Your task to perform on an android device: Search for a dining table on crateandbarrel.com Image 0: 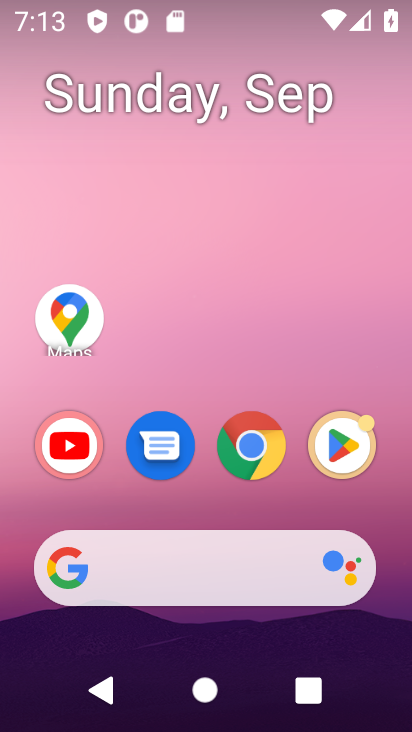
Step 0: drag from (225, 567) to (285, 34)
Your task to perform on an android device: Search for a dining table on crateandbarrel.com Image 1: 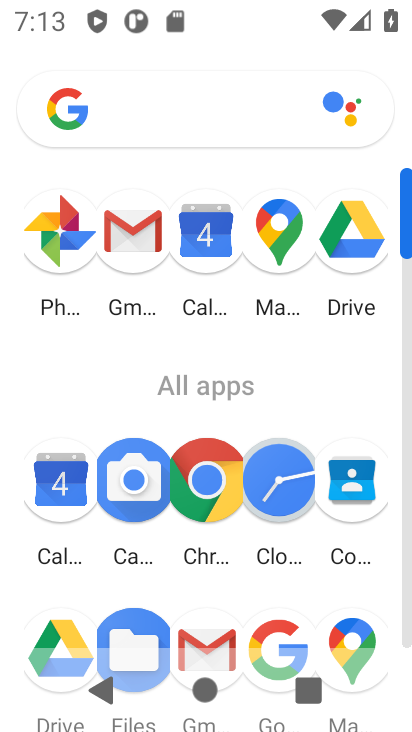
Step 1: click (216, 487)
Your task to perform on an android device: Search for a dining table on crateandbarrel.com Image 2: 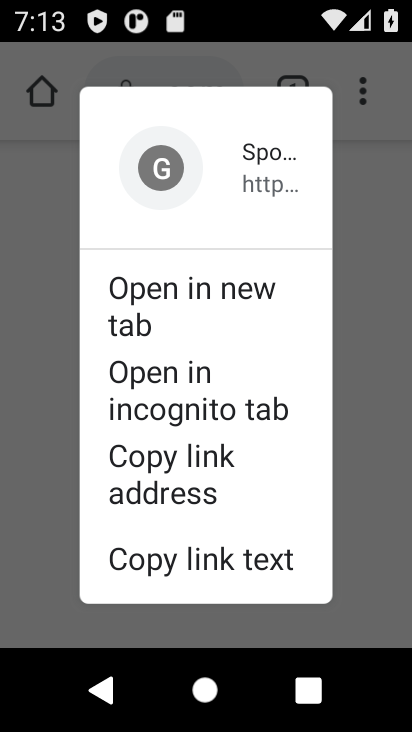
Step 2: press back button
Your task to perform on an android device: Search for a dining table on crateandbarrel.com Image 3: 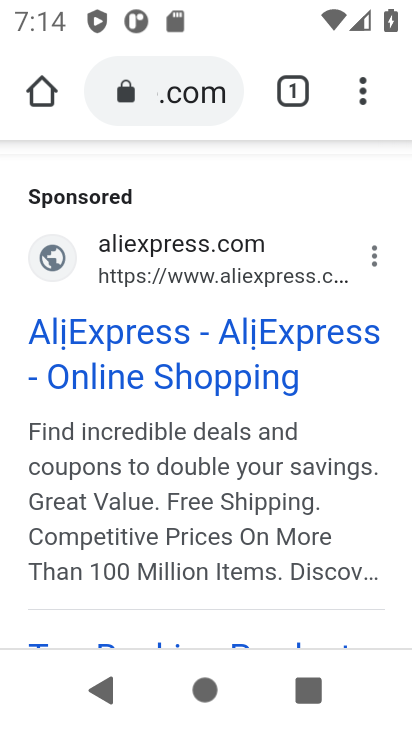
Step 3: click (175, 92)
Your task to perform on an android device: Search for a dining table on crateandbarrel.com Image 4: 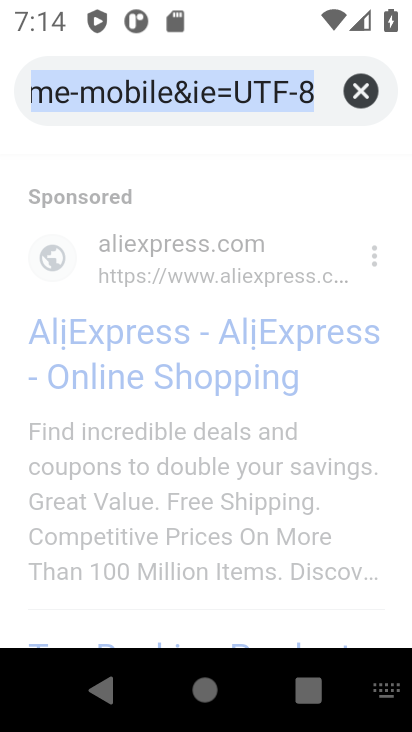
Step 4: click (364, 91)
Your task to perform on an android device: Search for a dining table on crateandbarrel.com Image 5: 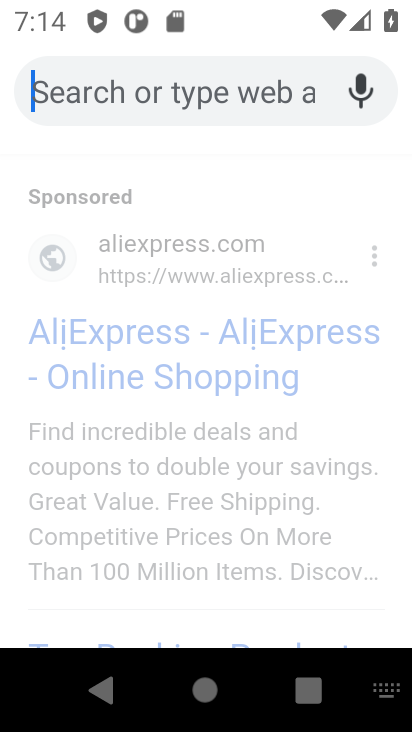
Step 5: type "crateandbarrel.com"
Your task to perform on an android device: Search for a dining table on crateandbarrel.com Image 6: 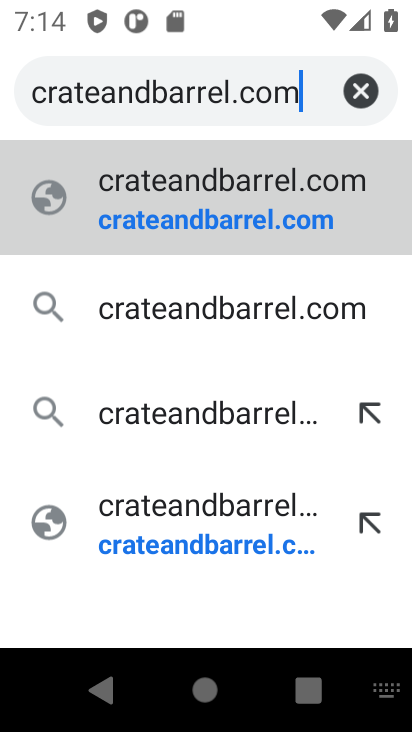
Step 6: press enter
Your task to perform on an android device: Search for a dining table on crateandbarrel.com Image 7: 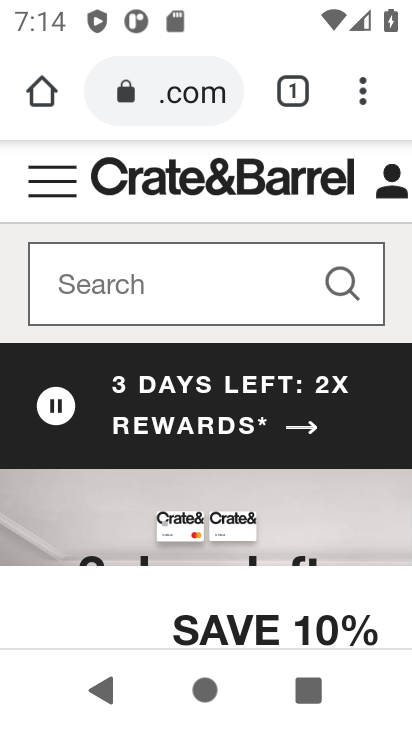
Step 7: click (179, 269)
Your task to perform on an android device: Search for a dining table on crateandbarrel.com Image 8: 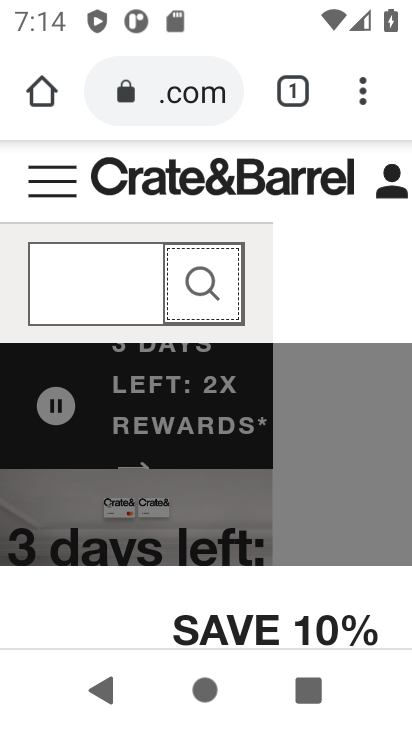
Step 8: type "dining table"
Your task to perform on an android device: Search for a dining table on crateandbarrel.com Image 9: 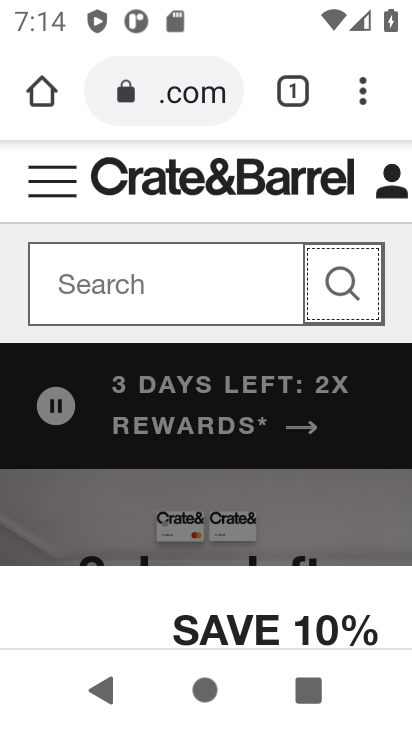
Step 9: press enter
Your task to perform on an android device: Search for a dining table on crateandbarrel.com Image 10: 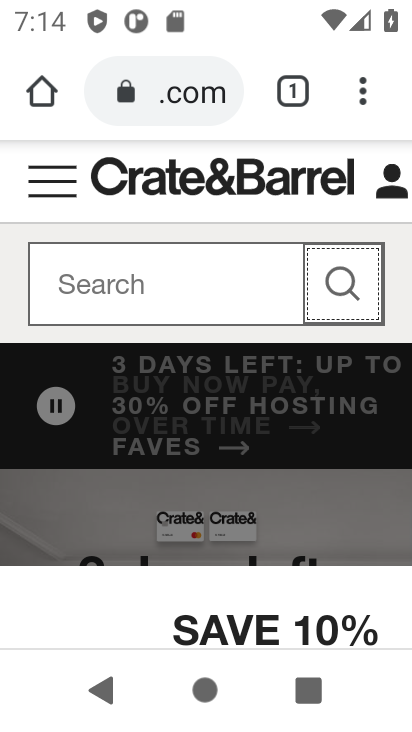
Step 10: click (219, 262)
Your task to perform on an android device: Search for a dining table on crateandbarrel.com Image 11: 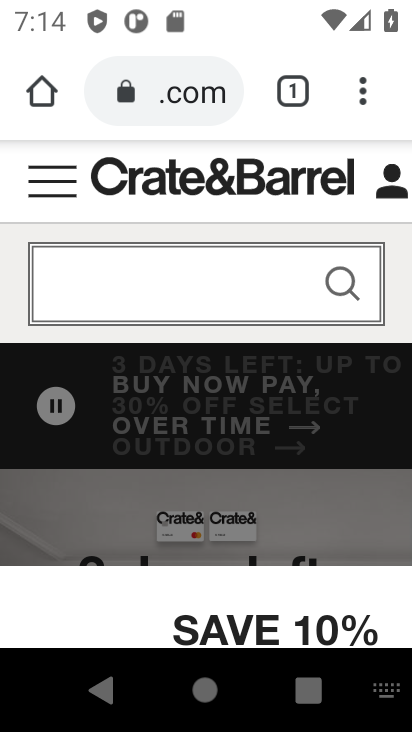
Step 11: type "dining table"
Your task to perform on an android device: Search for a dining table on crateandbarrel.com Image 12: 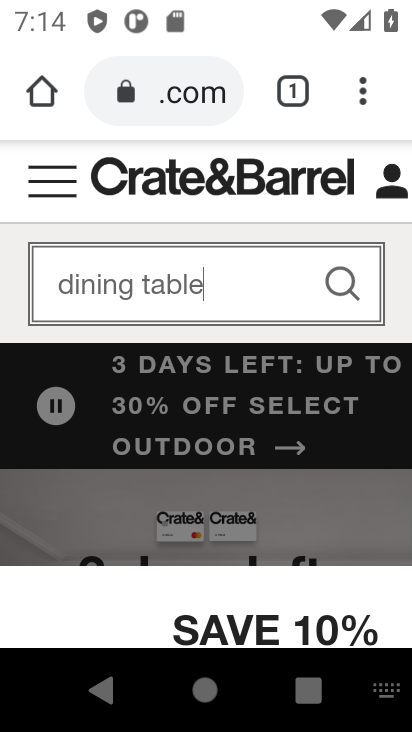
Step 12: press enter
Your task to perform on an android device: Search for a dining table on crateandbarrel.com Image 13: 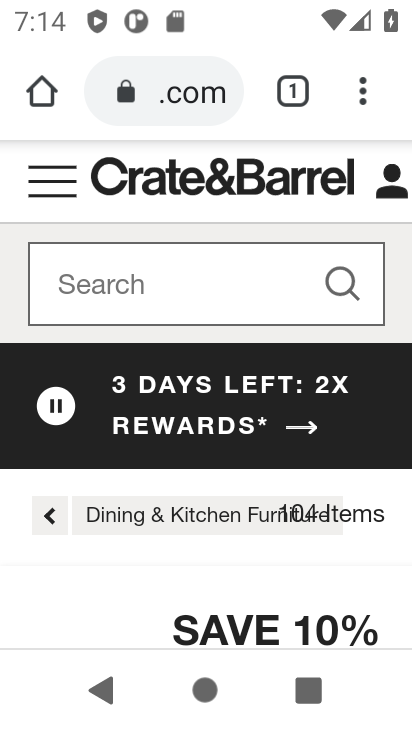
Step 13: drag from (338, 532) to (353, 246)
Your task to perform on an android device: Search for a dining table on crateandbarrel.com Image 14: 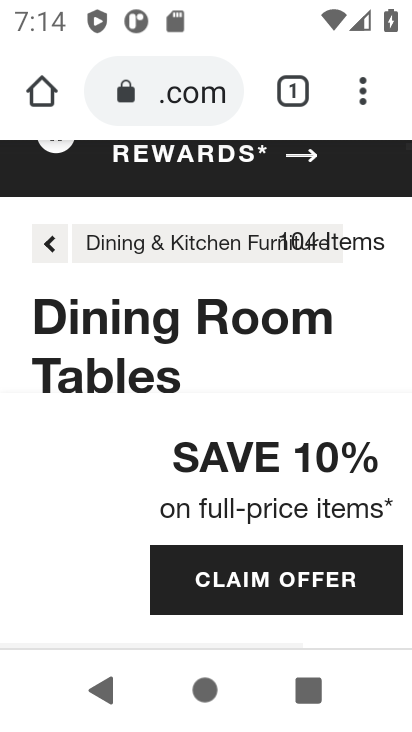
Step 14: drag from (331, 576) to (359, 204)
Your task to perform on an android device: Search for a dining table on crateandbarrel.com Image 15: 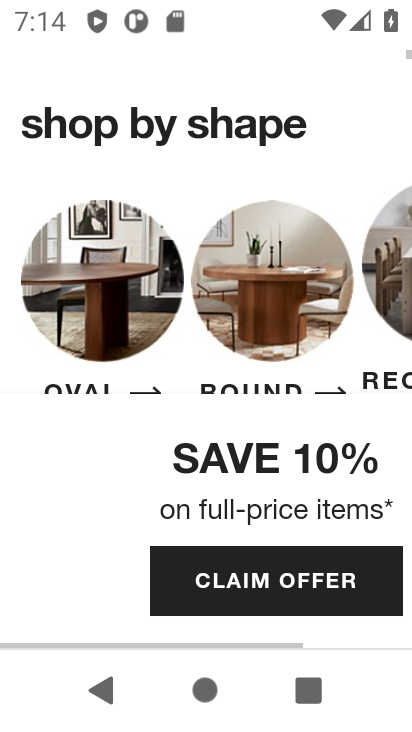
Step 15: drag from (294, 571) to (361, 247)
Your task to perform on an android device: Search for a dining table on crateandbarrel.com Image 16: 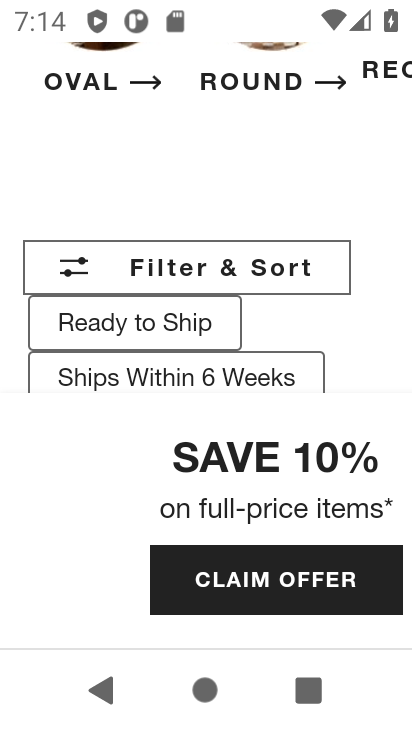
Step 16: drag from (261, 186) to (282, 377)
Your task to perform on an android device: Search for a dining table on crateandbarrel.com Image 17: 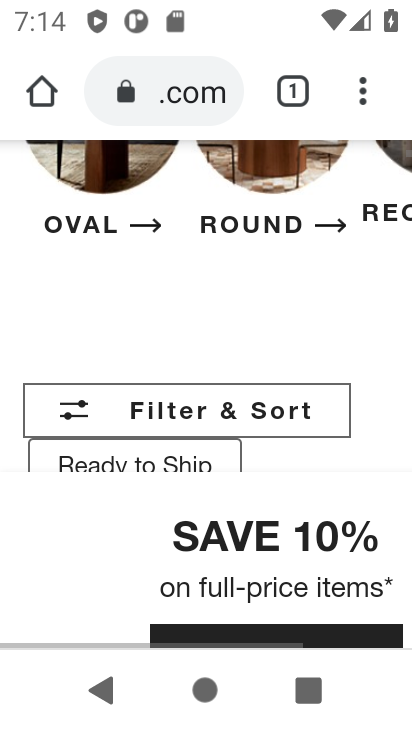
Step 17: click (133, 155)
Your task to perform on an android device: Search for a dining table on crateandbarrel.com Image 18: 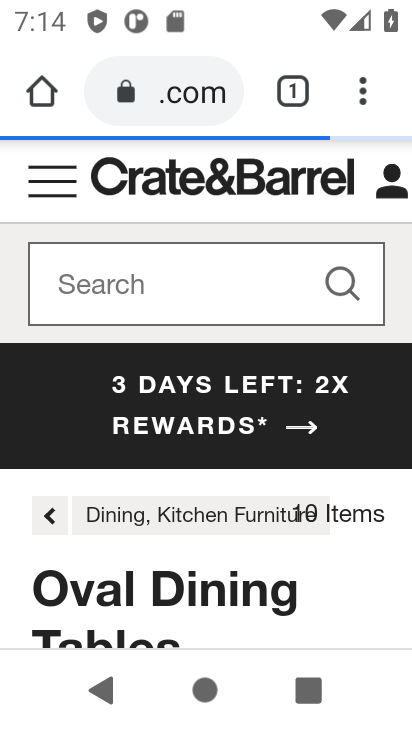
Step 18: click (291, 248)
Your task to perform on an android device: Search for a dining table on crateandbarrel.com Image 19: 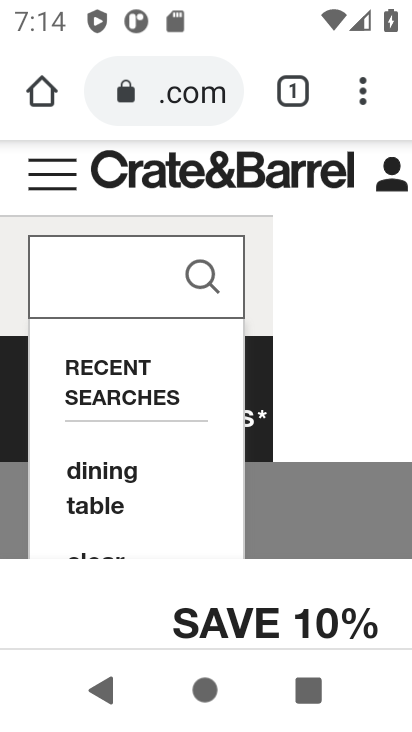
Step 19: drag from (272, 559) to (332, 300)
Your task to perform on an android device: Search for a dining table on crateandbarrel.com Image 20: 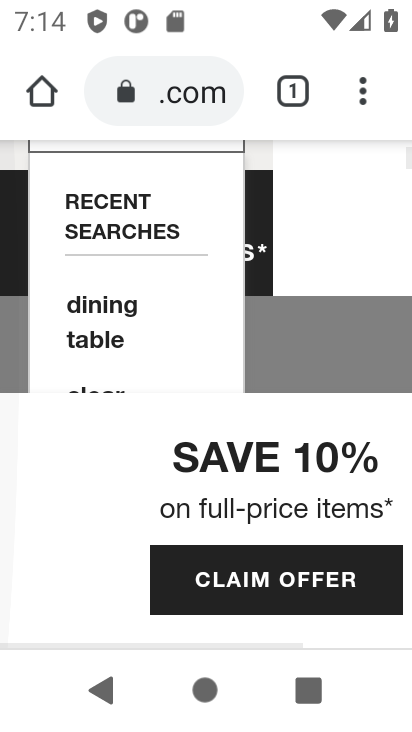
Step 20: drag from (280, 618) to (312, 227)
Your task to perform on an android device: Search for a dining table on crateandbarrel.com Image 21: 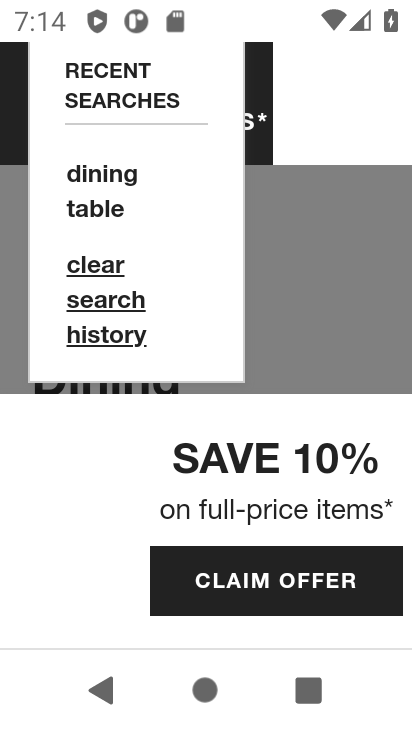
Step 21: drag from (254, 312) to (300, 163)
Your task to perform on an android device: Search for a dining table on crateandbarrel.com Image 22: 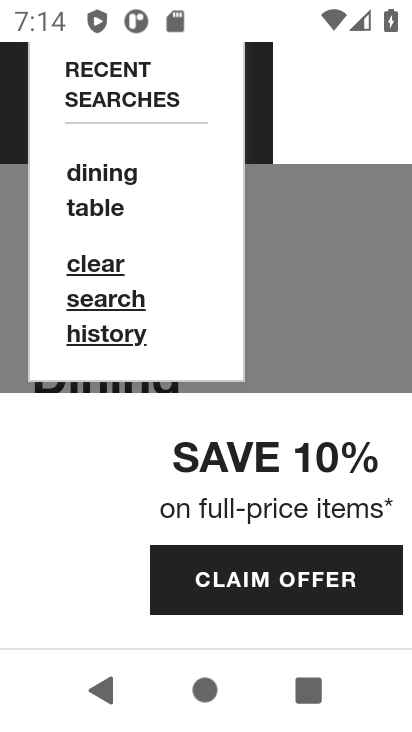
Step 22: drag from (298, 565) to (331, 207)
Your task to perform on an android device: Search for a dining table on crateandbarrel.com Image 23: 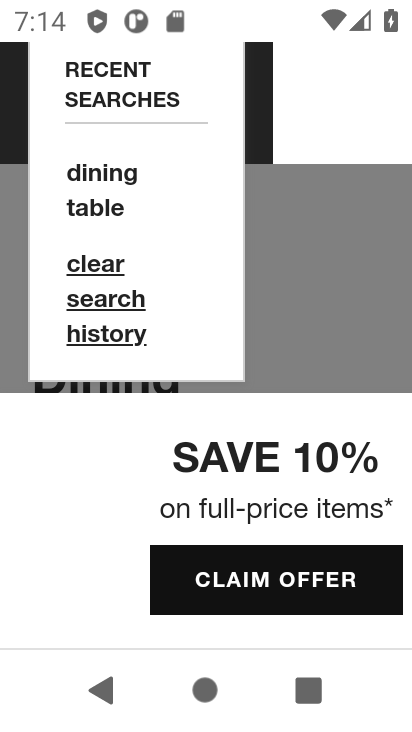
Step 23: click (115, 172)
Your task to perform on an android device: Search for a dining table on crateandbarrel.com Image 24: 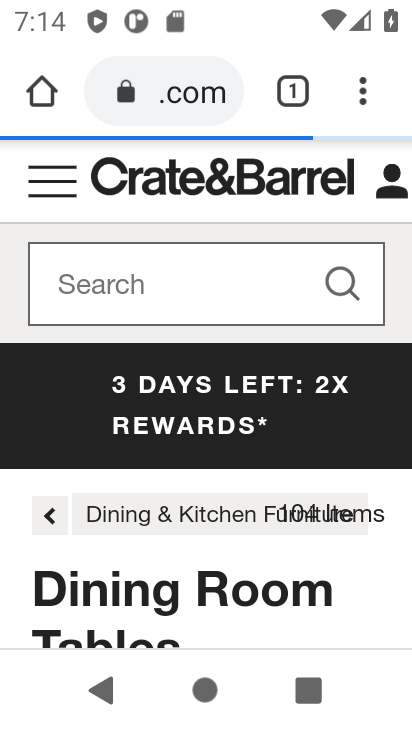
Step 24: drag from (124, 486) to (123, 211)
Your task to perform on an android device: Search for a dining table on crateandbarrel.com Image 25: 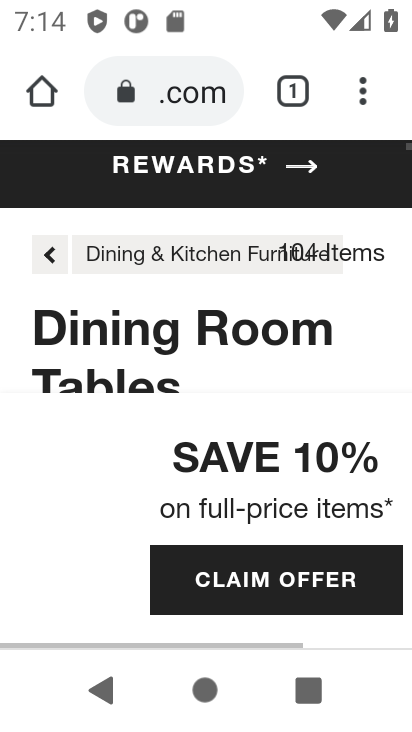
Step 25: drag from (181, 330) to (207, 180)
Your task to perform on an android device: Search for a dining table on crateandbarrel.com Image 26: 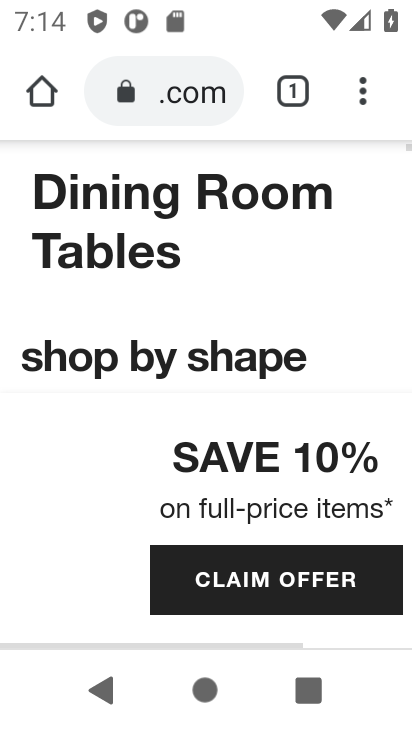
Step 26: drag from (215, 615) to (263, 265)
Your task to perform on an android device: Search for a dining table on crateandbarrel.com Image 27: 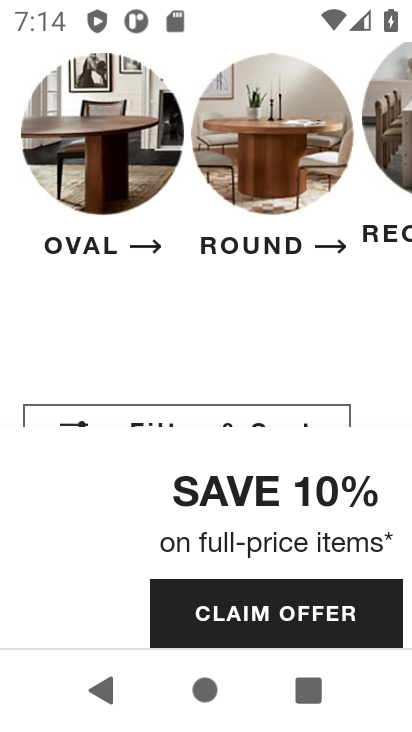
Step 27: drag from (246, 433) to (280, 136)
Your task to perform on an android device: Search for a dining table on crateandbarrel.com Image 28: 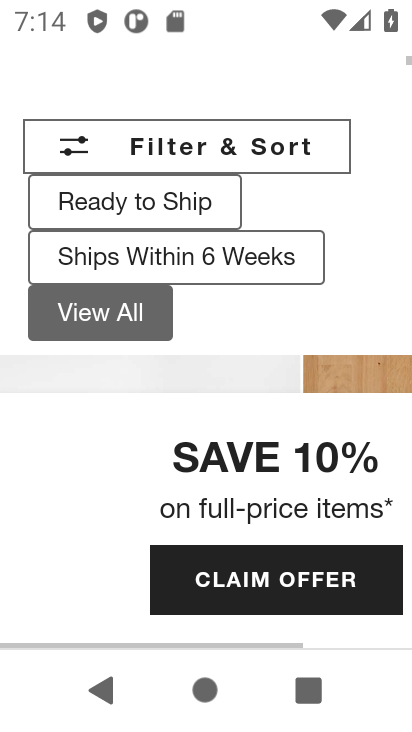
Step 28: click (270, 56)
Your task to perform on an android device: Search for a dining table on crateandbarrel.com Image 29: 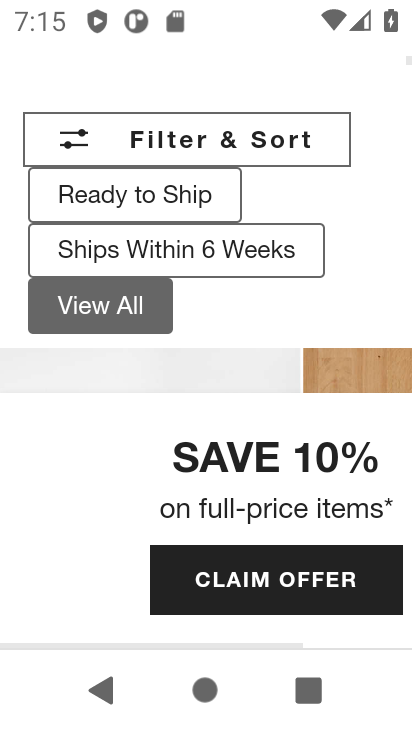
Step 29: task complete